Your task to perform on an android device: Go to Reddit.com Image 0: 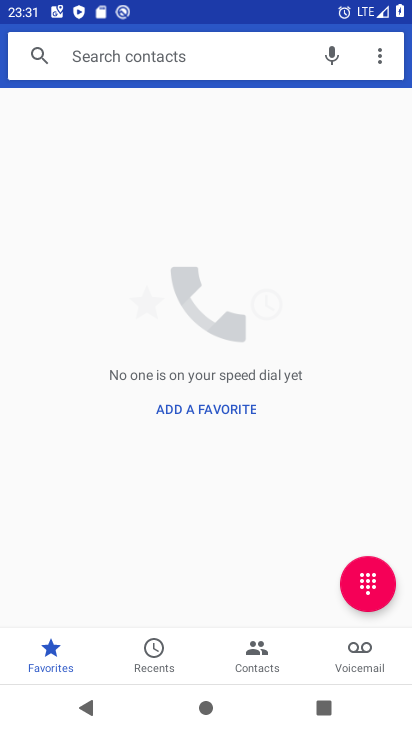
Step 0: press back button
Your task to perform on an android device: Go to Reddit.com Image 1: 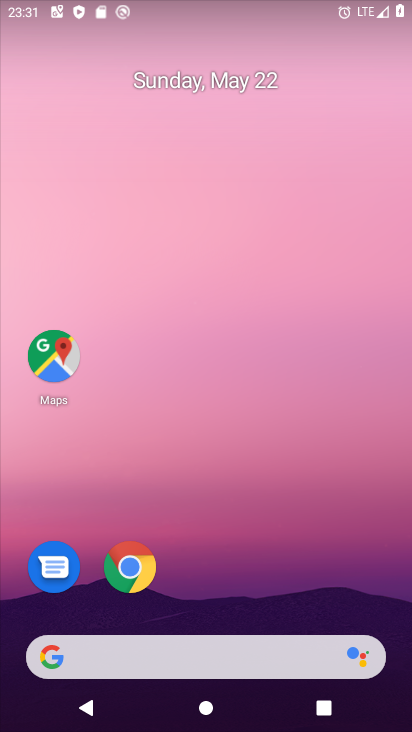
Step 1: drag from (222, 382) to (219, 0)
Your task to perform on an android device: Go to Reddit.com Image 2: 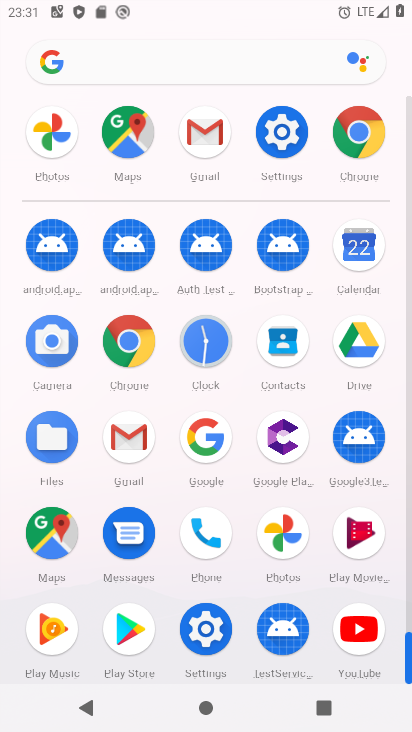
Step 2: click (132, 338)
Your task to perform on an android device: Go to Reddit.com Image 3: 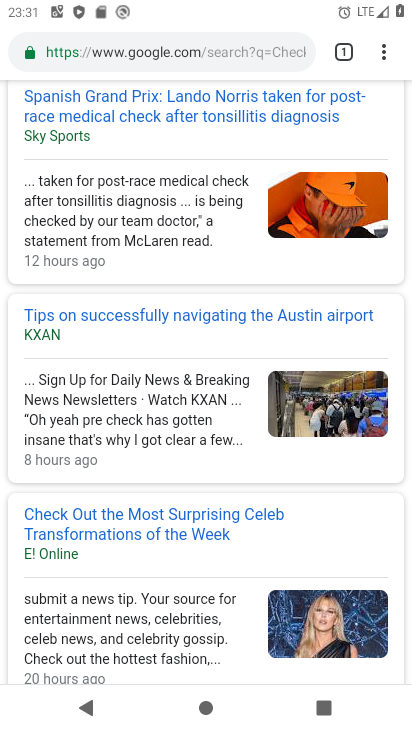
Step 3: click (251, 45)
Your task to perform on an android device: Go to Reddit.com Image 4: 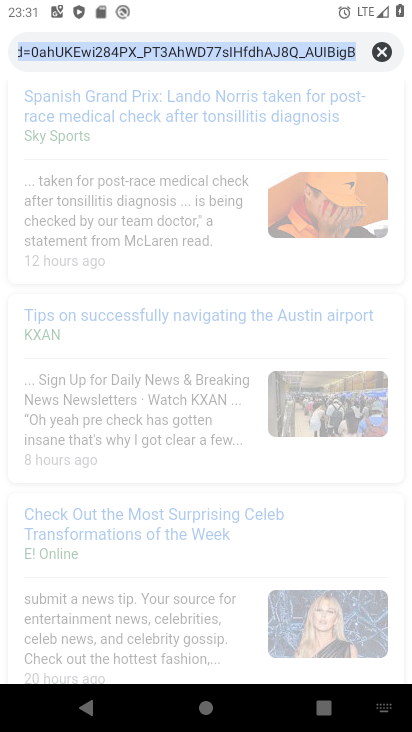
Step 4: click (383, 46)
Your task to perform on an android device: Go to Reddit.com Image 5: 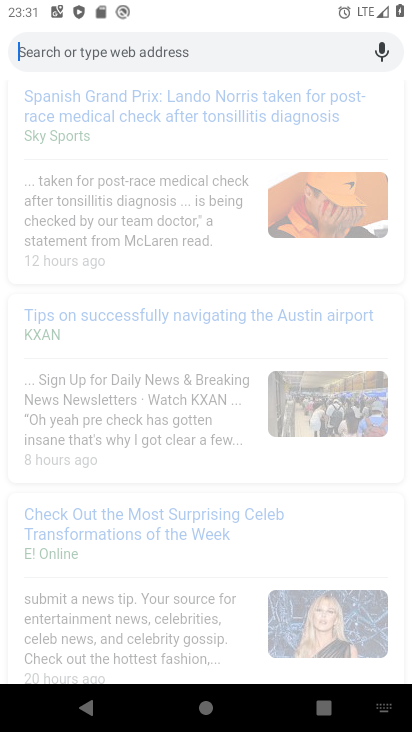
Step 5: type "Reddit.com"
Your task to perform on an android device: Go to Reddit.com Image 6: 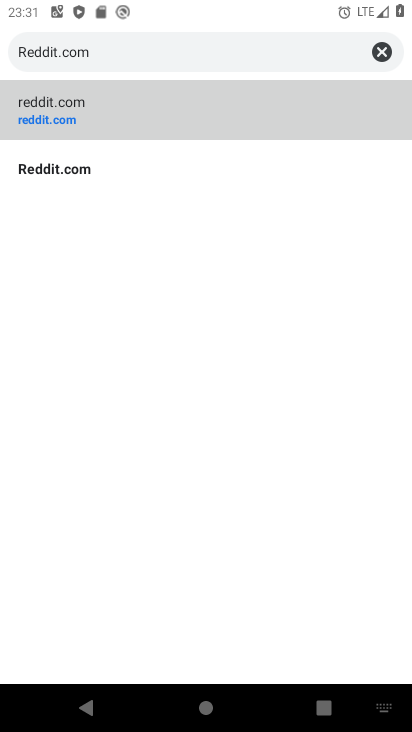
Step 6: click (122, 107)
Your task to perform on an android device: Go to Reddit.com Image 7: 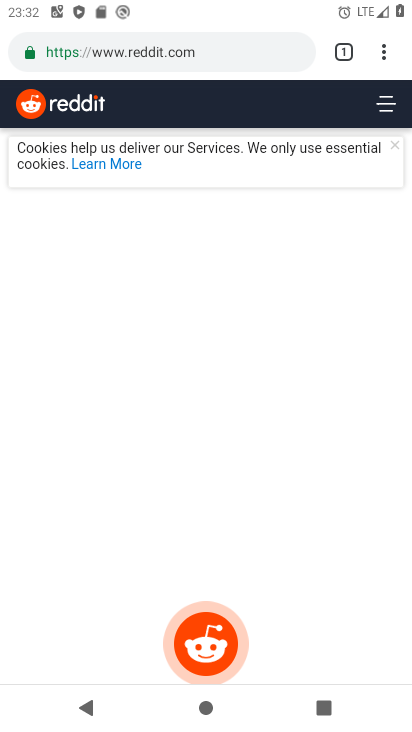
Step 7: task complete